Your task to perform on an android device: Open Youtube and go to "Your channel" Image 0: 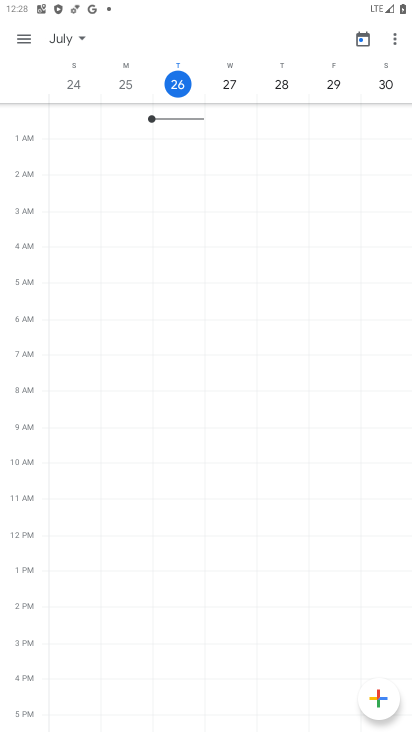
Step 0: press home button
Your task to perform on an android device: Open Youtube and go to "Your channel" Image 1: 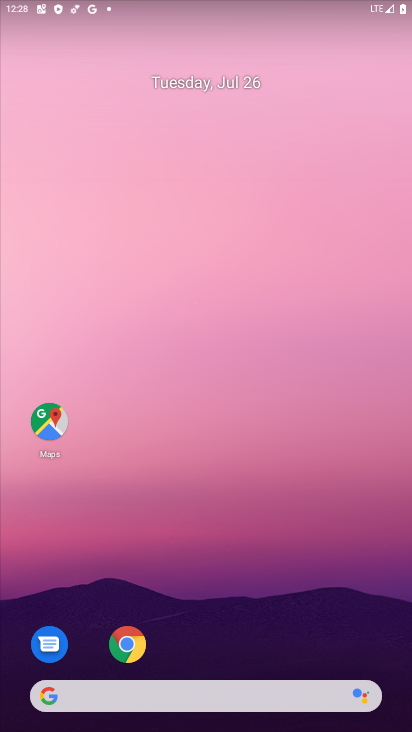
Step 1: drag from (224, 645) to (201, 24)
Your task to perform on an android device: Open Youtube and go to "Your channel" Image 2: 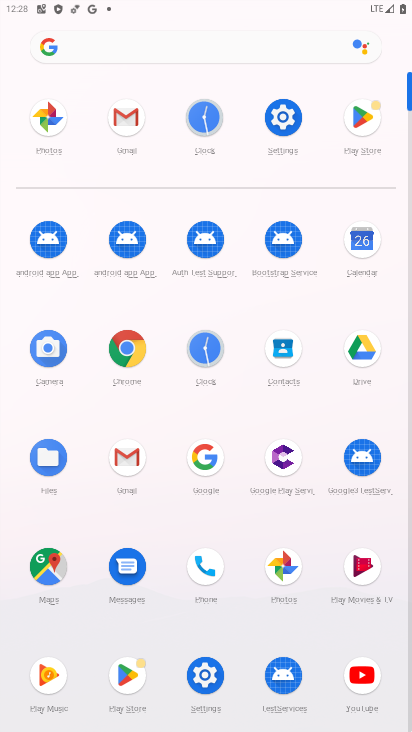
Step 2: click (360, 684)
Your task to perform on an android device: Open Youtube and go to "Your channel" Image 3: 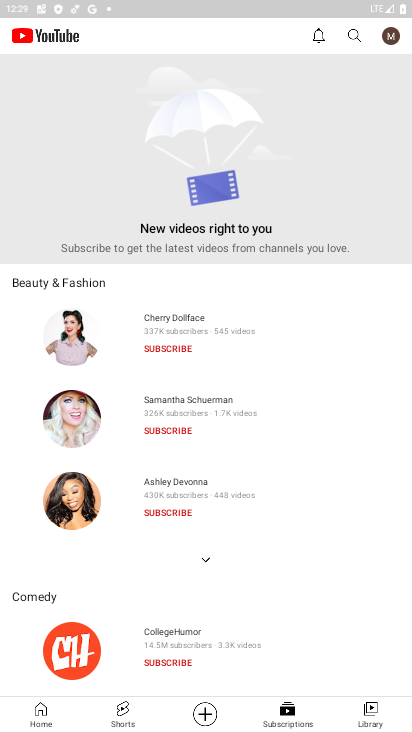
Step 3: click (393, 40)
Your task to perform on an android device: Open Youtube and go to "Your channel" Image 4: 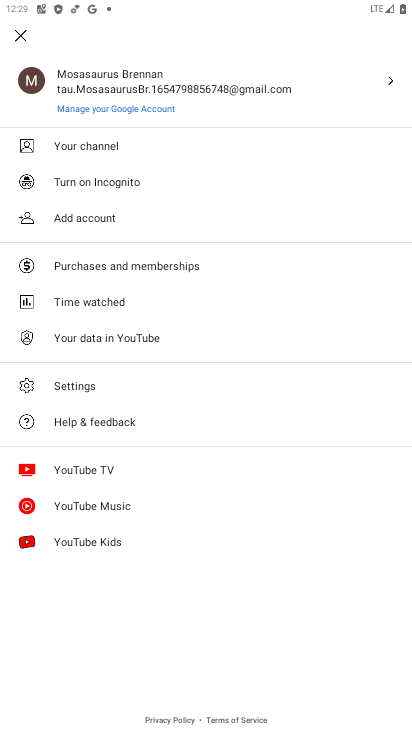
Step 4: click (82, 150)
Your task to perform on an android device: Open Youtube and go to "Your channel" Image 5: 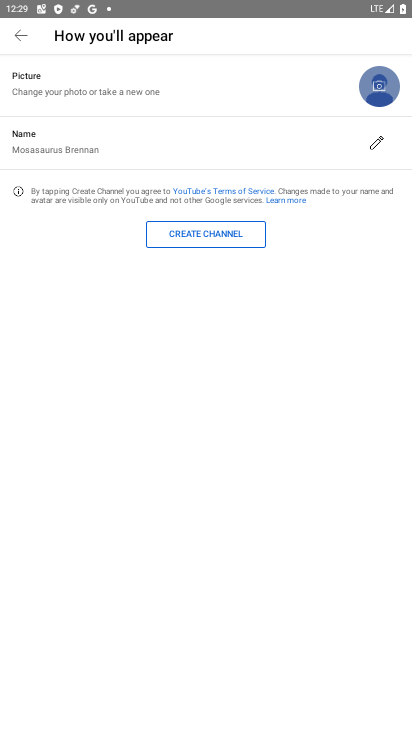
Step 5: task complete